Your task to perform on an android device: change keyboard looks Image 0: 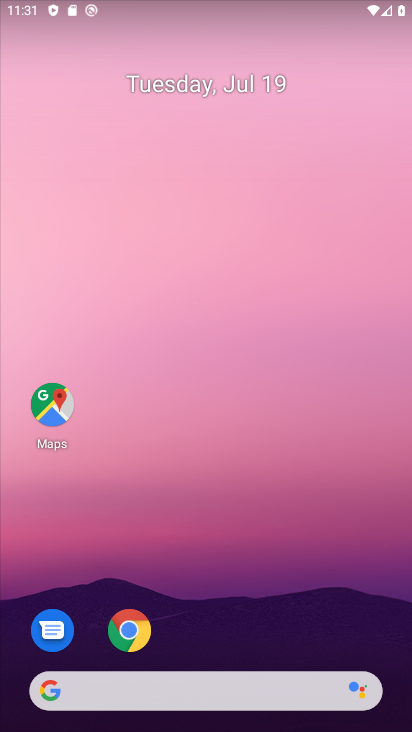
Step 0: drag from (247, 610) to (184, 163)
Your task to perform on an android device: change keyboard looks Image 1: 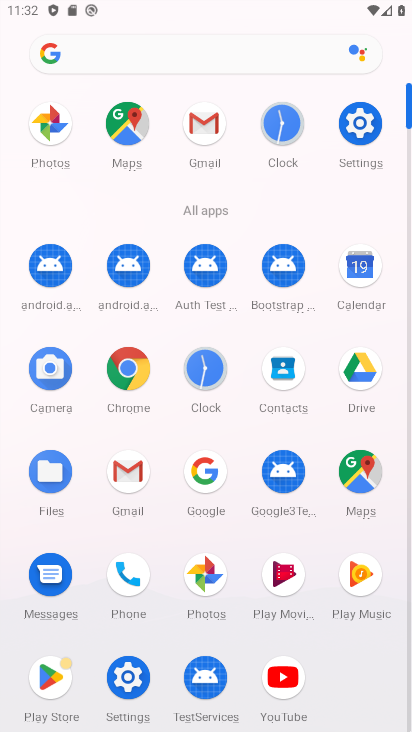
Step 1: click (358, 125)
Your task to perform on an android device: change keyboard looks Image 2: 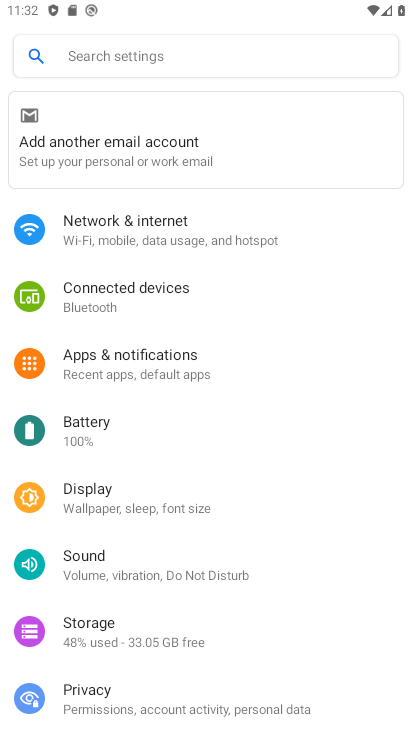
Step 2: drag from (241, 663) to (217, 331)
Your task to perform on an android device: change keyboard looks Image 3: 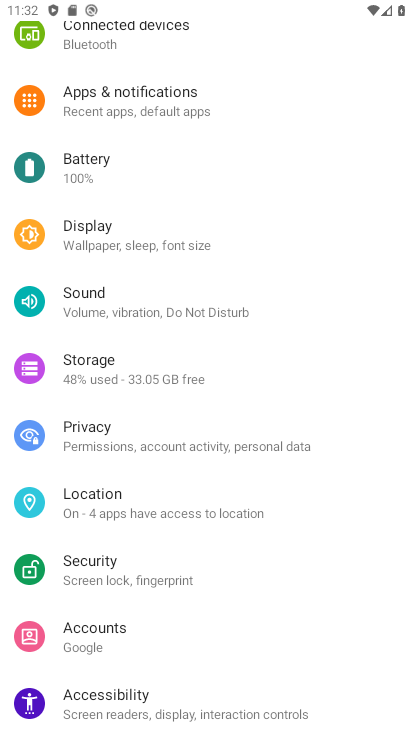
Step 3: drag from (234, 595) to (198, 290)
Your task to perform on an android device: change keyboard looks Image 4: 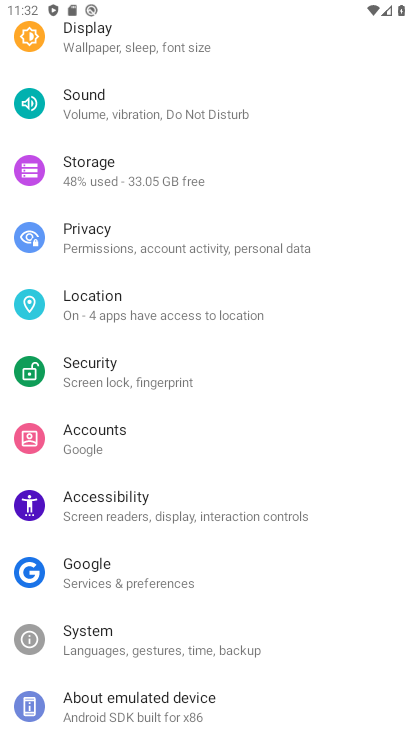
Step 4: drag from (205, 609) to (135, 135)
Your task to perform on an android device: change keyboard looks Image 5: 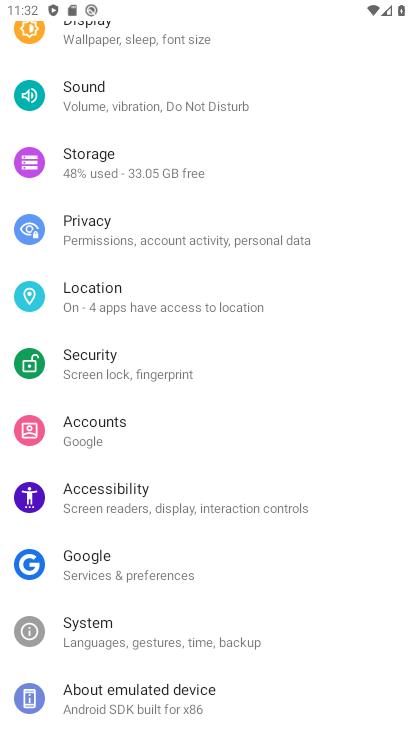
Step 5: click (103, 619)
Your task to perform on an android device: change keyboard looks Image 6: 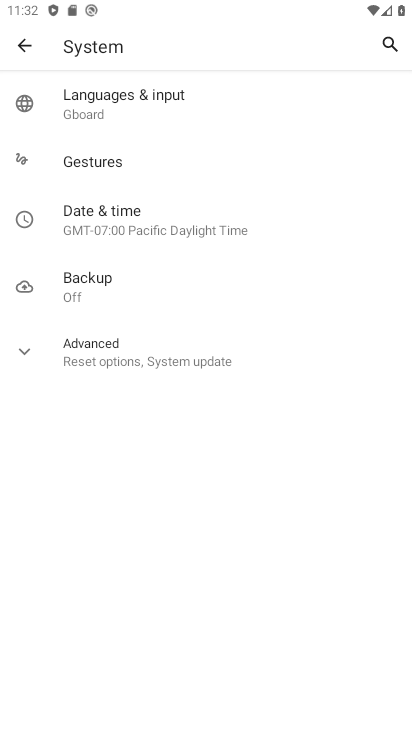
Step 6: click (96, 98)
Your task to perform on an android device: change keyboard looks Image 7: 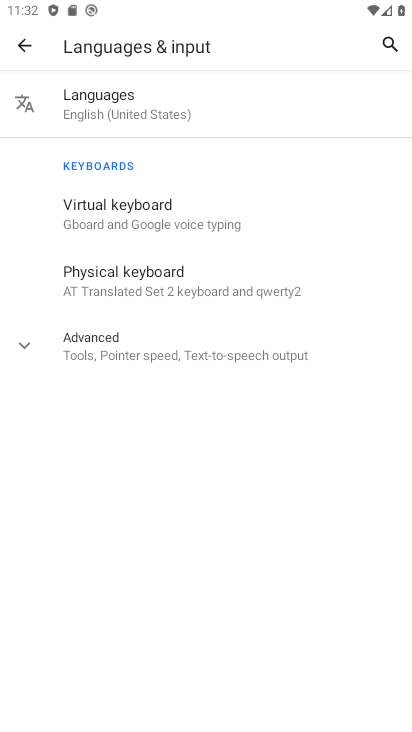
Step 7: click (107, 201)
Your task to perform on an android device: change keyboard looks Image 8: 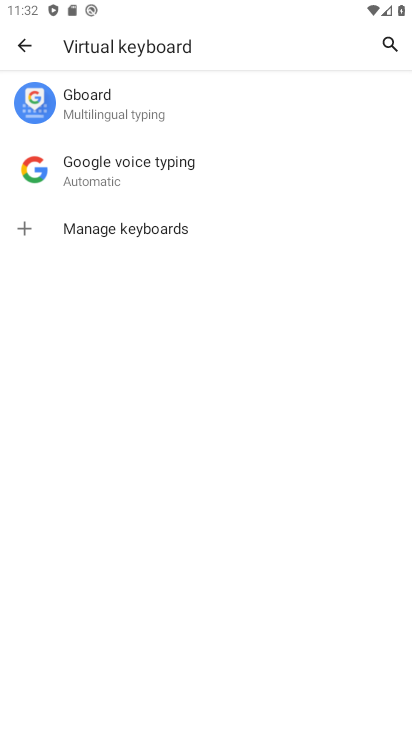
Step 8: click (76, 97)
Your task to perform on an android device: change keyboard looks Image 9: 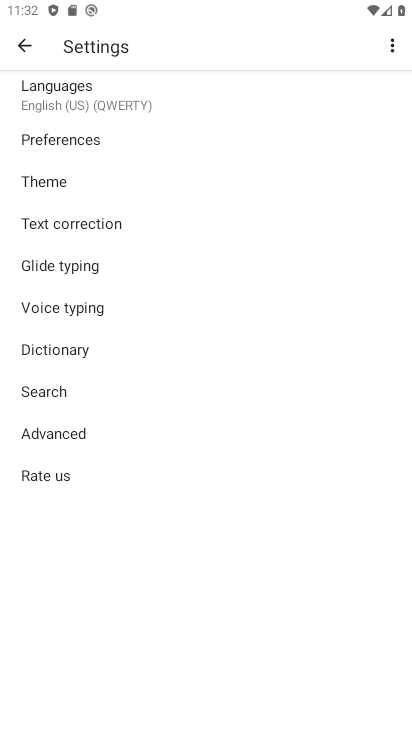
Step 9: click (59, 180)
Your task to perform on an android device: change keyboard looks Image 10: 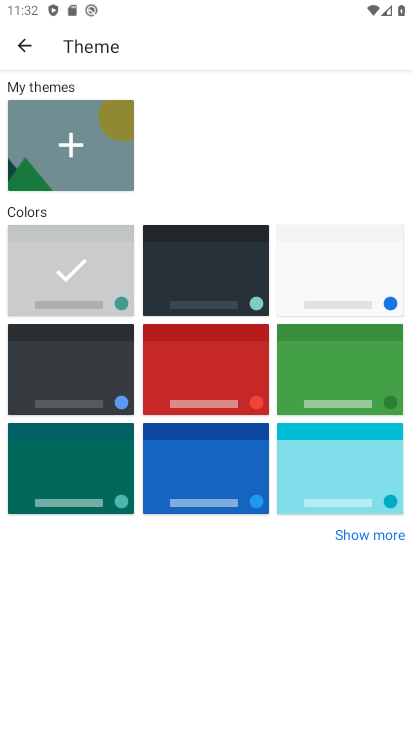
Step 10: click (188, 262)
Your task to perform on an android device: change keyboard looks Image 11: 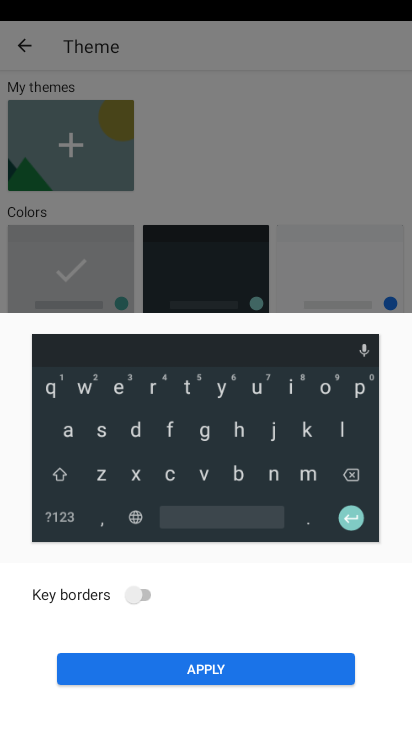
Step 11: click (201, 673)
Your task to perform on an android device: change keyboard looks Image 12: 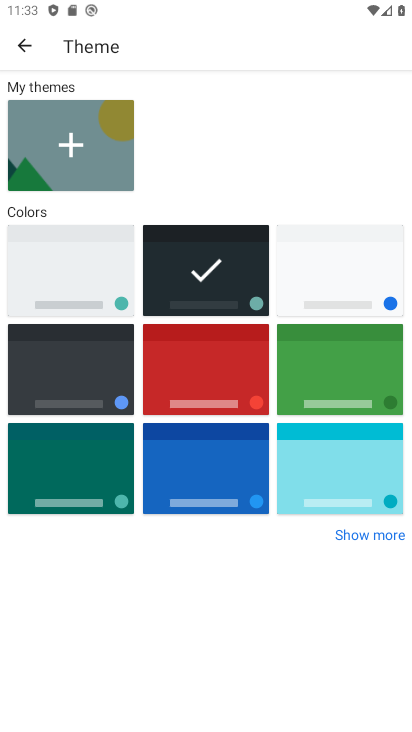
Step 12: task complete